Your task to perform on an android device: set an alarm Image 0: 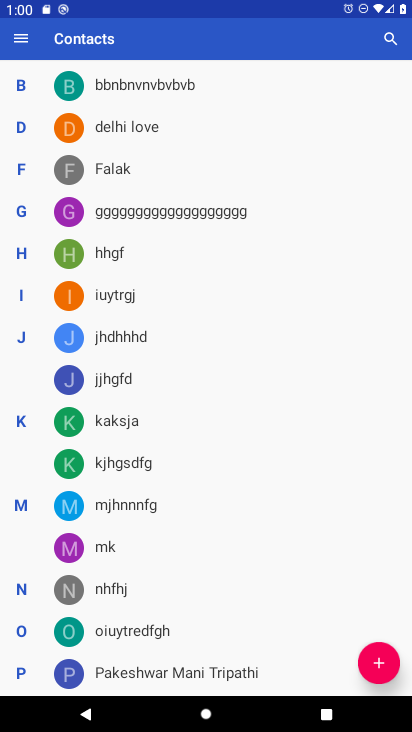
Step 0: press home button
Your task to perform on an android device: set an alarm Image 1: 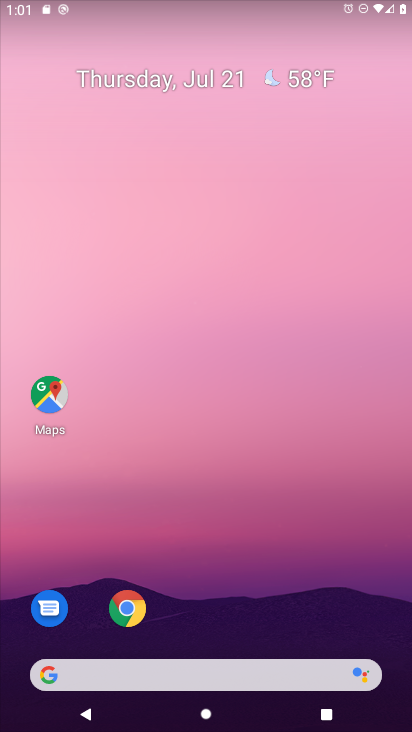
Step 1: drag from (220, 578) to (327, 11)
Your task to perform on an android device: set an alarm Image 2: 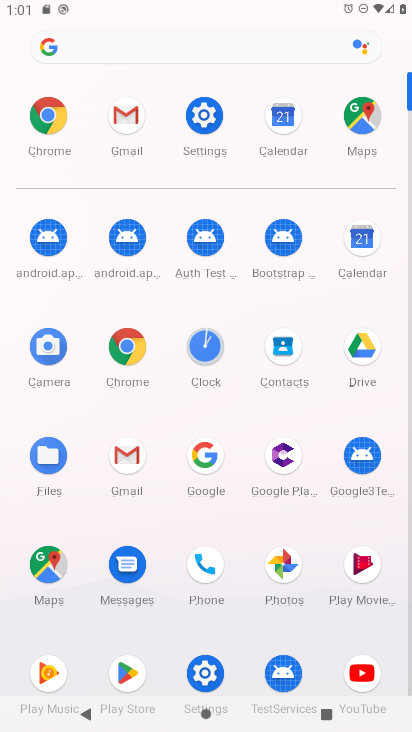
Step 2: click (192, 365)
Your task to perform on an android device: set an alarm Image 3: 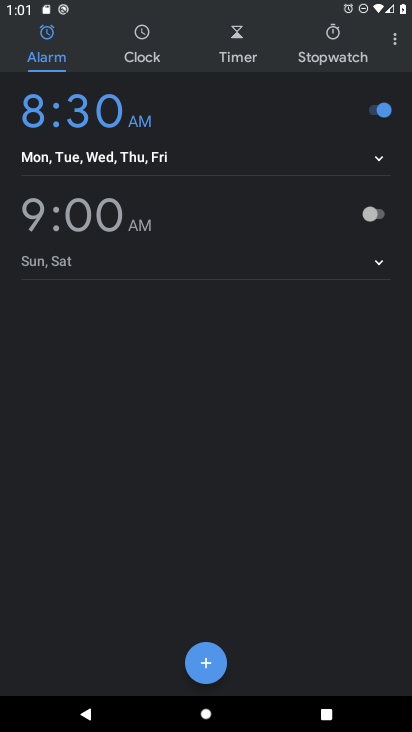
Step 3: click (373, 215)
Your task to perform on an android device: set an alarm Image 4: 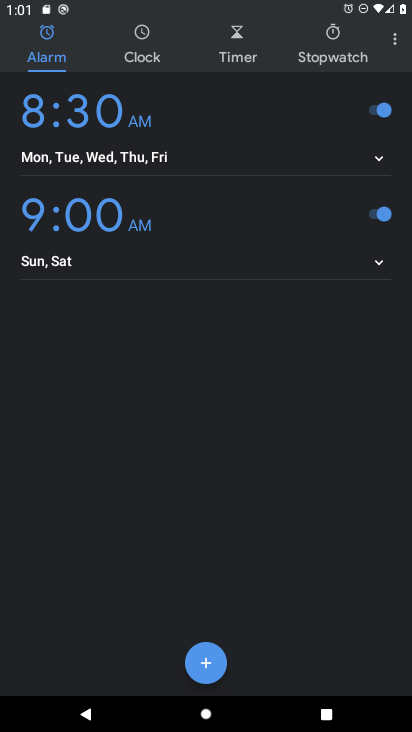
Step 4: task complete